Your task to perform on an android device: Go to Android settings Image 0: 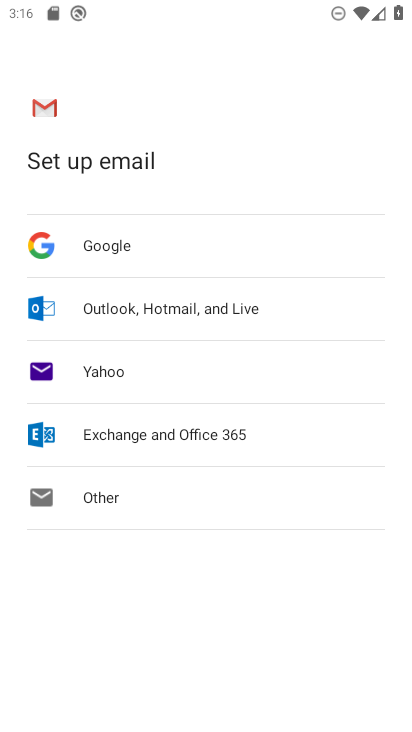
Step 0: press home button
Your task to perform on an android device: Go to Android settings Image 1: 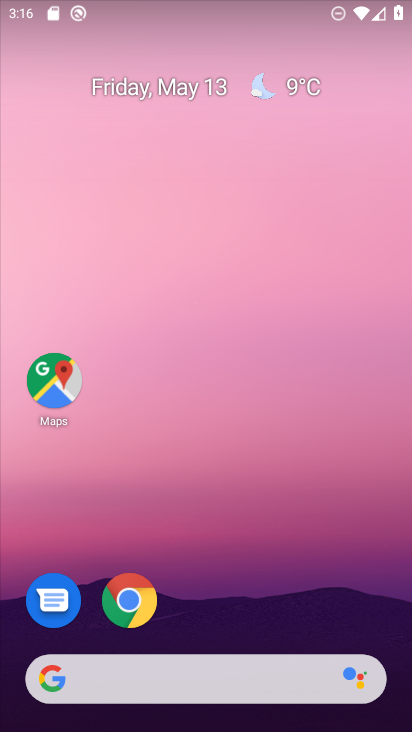
Step 1: drag from (191, 626) to (373, 164)
Your task to perform on an android device: Go to Android settings Image 2: 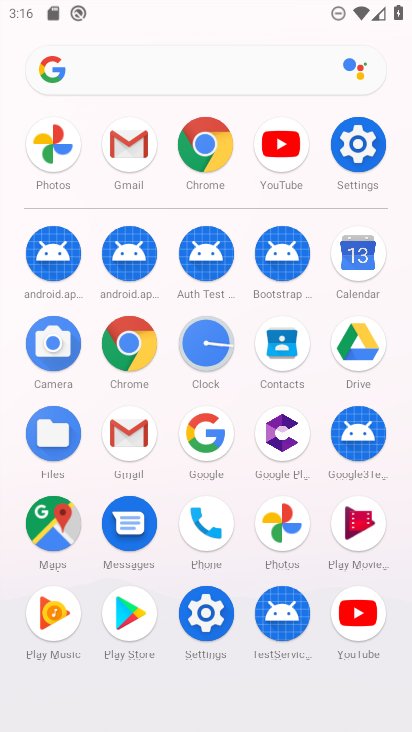
Step 2: click (356, 135)
Your task to perform on an android device: Go to Android settings Image 3: 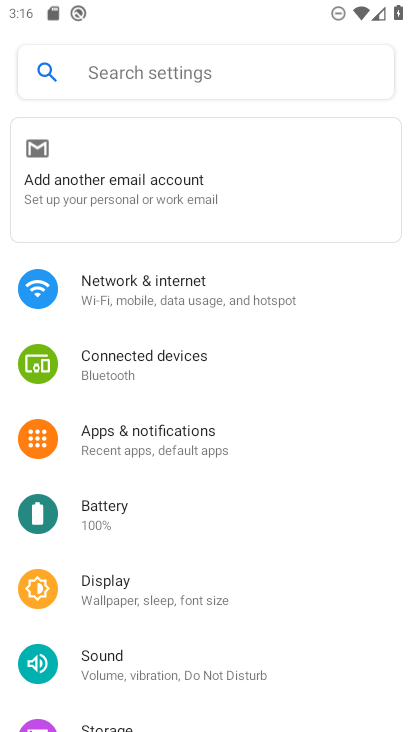
Step 3: drag from (210, 665) to (339, 109)
Your task to perform on an android device: Go to Android settings Image 4: 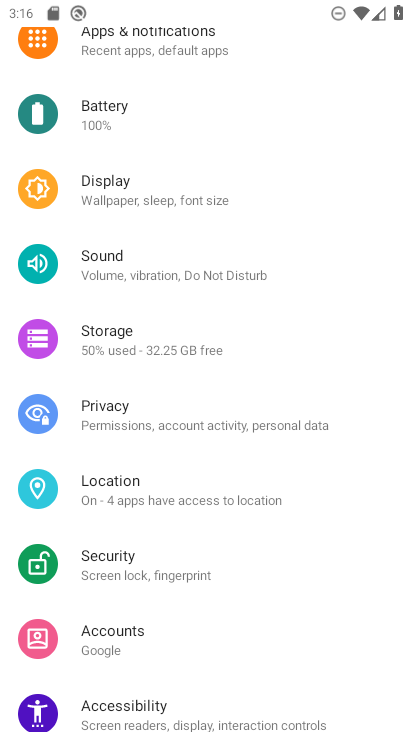
Step 4: drag from (208, 616) to (384, 101)
Your task to perform on an android device: Go to Android settings Image 5: 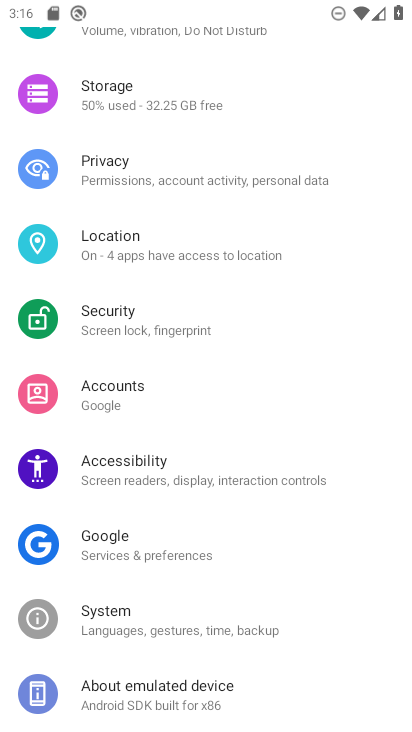
Step 5: drag from (182, 665) to (289, 238)
Your task to perform on an android device: Go to Android settings Image 6: 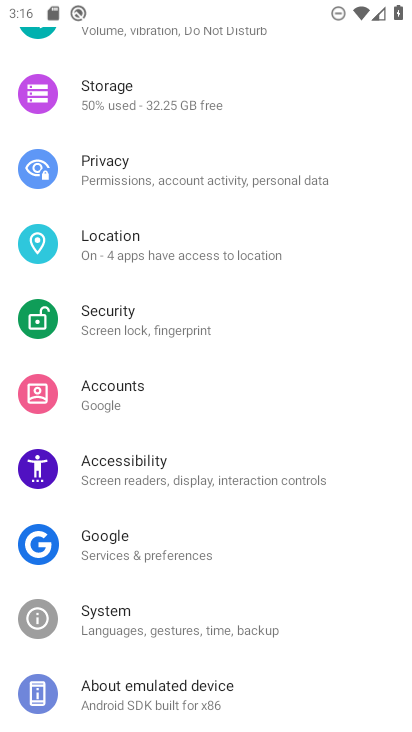
Step 6: click (131, 690)
Your task to perform on an android device: Go to Android settings Image 7: 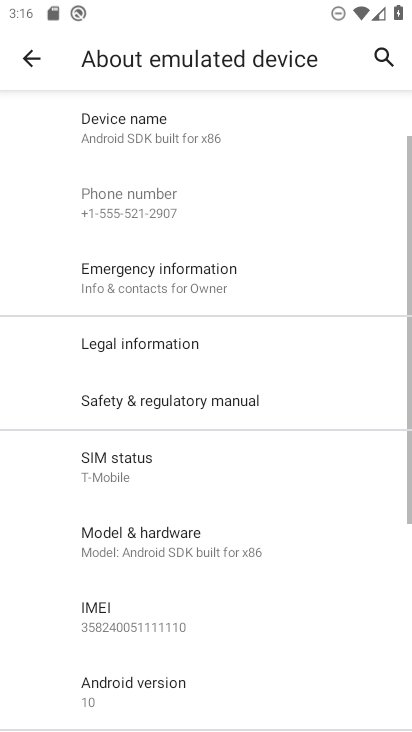
Step 7: drag from (172, 520) to (273, 142)
Your task to perform on an android device: Go to Android settings Image 8: 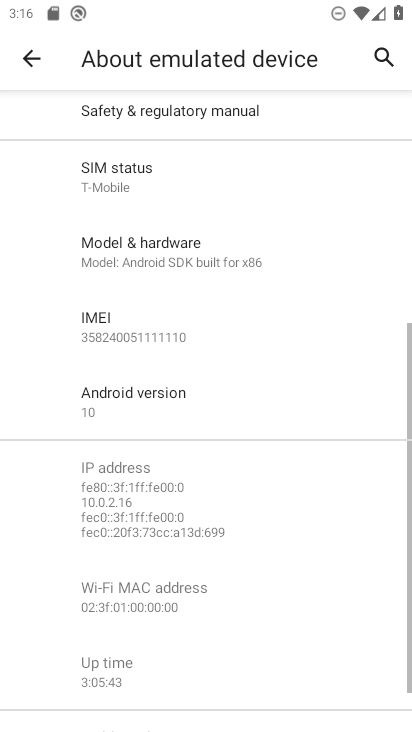
Step 8: click (187, 404)
Your task to perform on an android device: Go to Android settings Image 9: 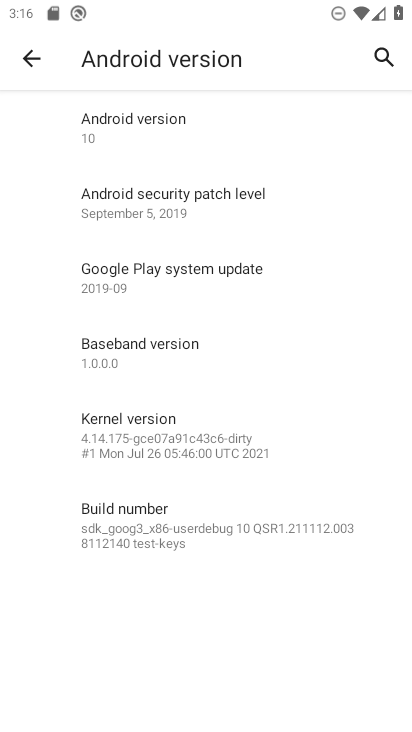
Step 9: click (198, 97)
Your task to perform on an android device: Go to Android settings Image 10: 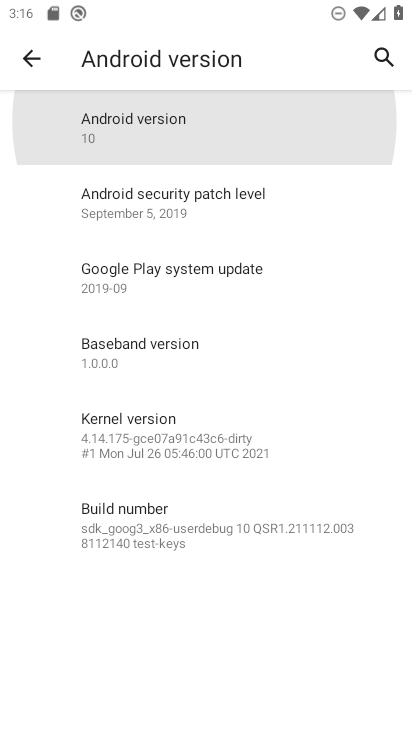
Step 10: click (155, 136)
Your task to perform on an android device: Go to Android settings Image 11: 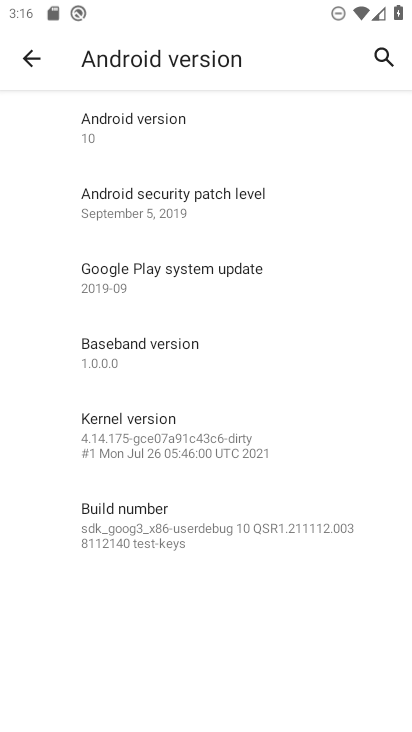
Step 11: task complete